Your task to perform on an android device: empty trash in the gmail app Image 0: 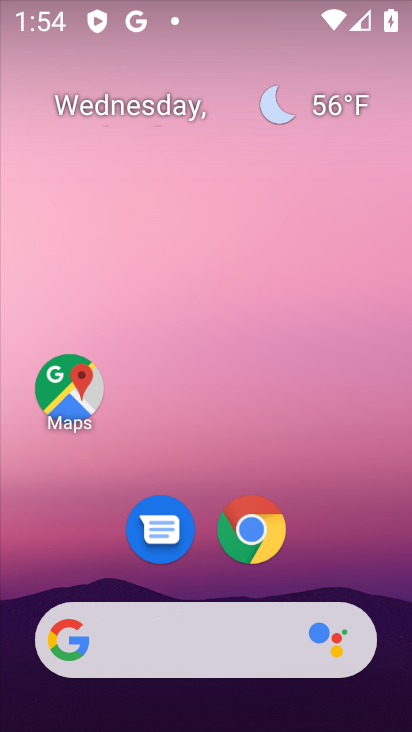
Step 0: drag from (325, 484) to (213, 2)
Your task to perform on an android device: empty trash in the gmail app Image 1: 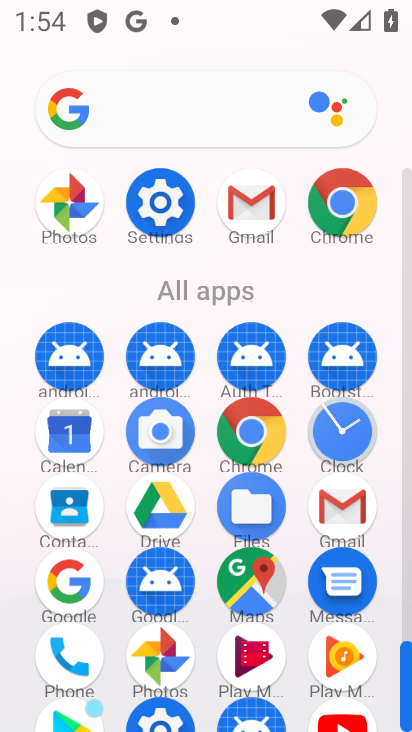
Step 1: click (257, 258)
Your task to perform on an android device: empty trash in the gmail app Image 2: 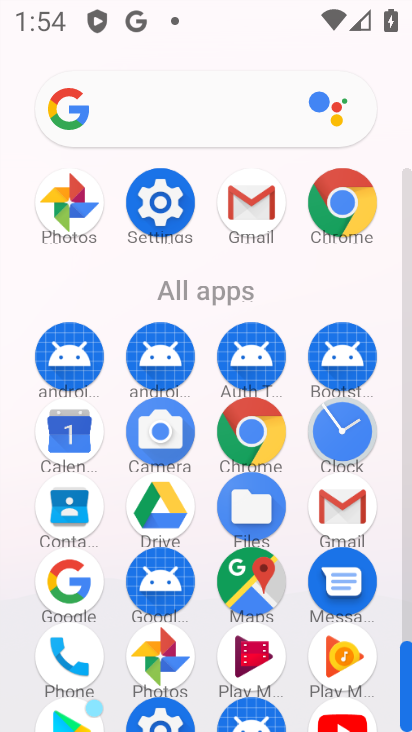
Step 2: click (249, 221)
Your task to perform on an android device: empty trash in the gmail app Image 3: 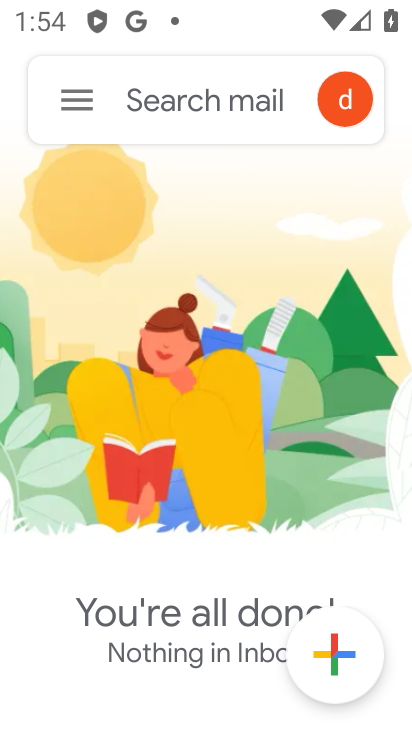
Step 3: click (66, 113)
Your task to perform on an android device: empty trash in the gmail app Image 4: 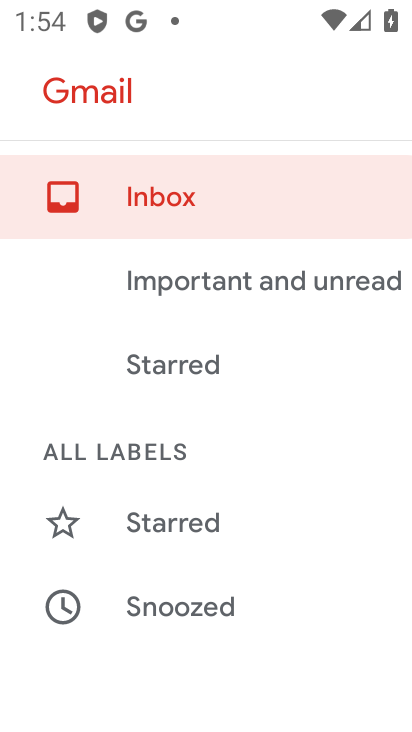
Step 4: drag from (210, 483) to (237, 96)
Your task to perform on an android device: empty trash in the gmail app Image 5: 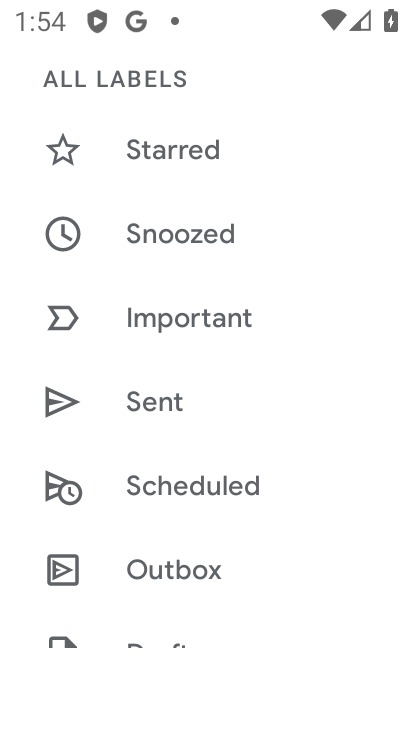
Step 5: drag from (270, 553) to (279, 206)
Your task to perform on an android device: empty trash in the gmail app Image 6: 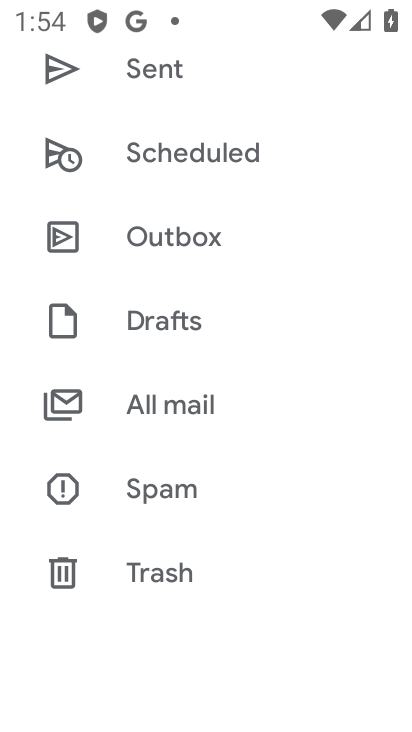
Step 6: click (184, 575)
Your task to perform on an android device: empty trash in the gmail app Image 7: 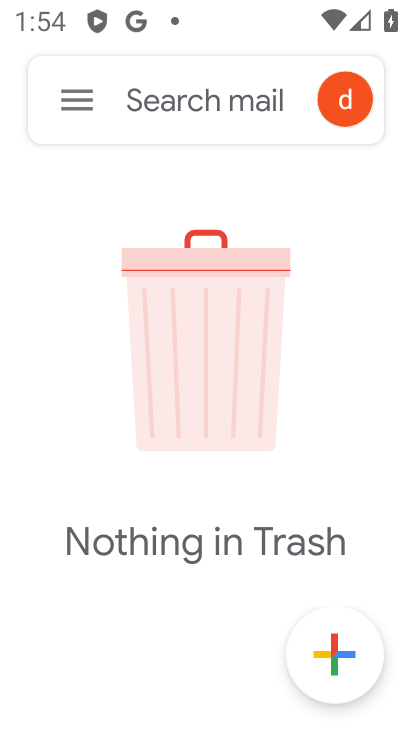
Step 7: task complete